Your task to perform on an android device: see tabs open on other devices in the chrome app Image 0: 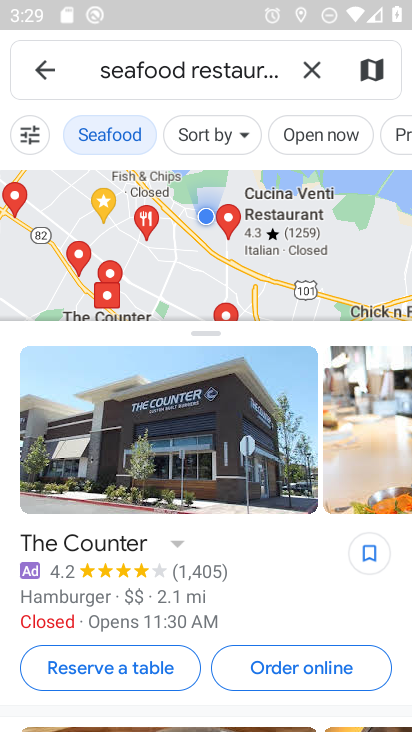
Step 0: press back button
Your task to perform on an android device: see tabs open on other devices in the chrome app Image 1: 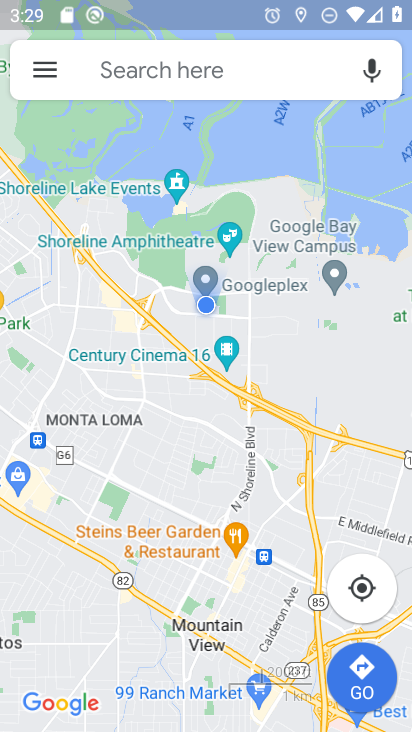
Step 1: press back button
Your task to perform on an android device: see tabs open on other devices in the chrome app Image 2: 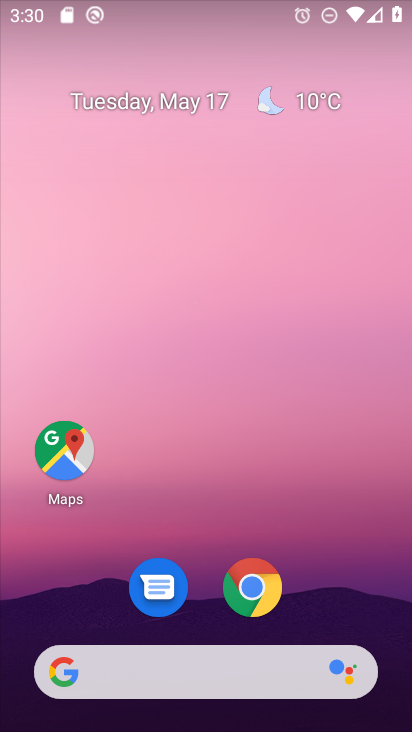
Step 2: drag from (325, 596) to (218, 76)
Your task to perform on an android device: see tabs open on other devices in the chrome app Image 3: 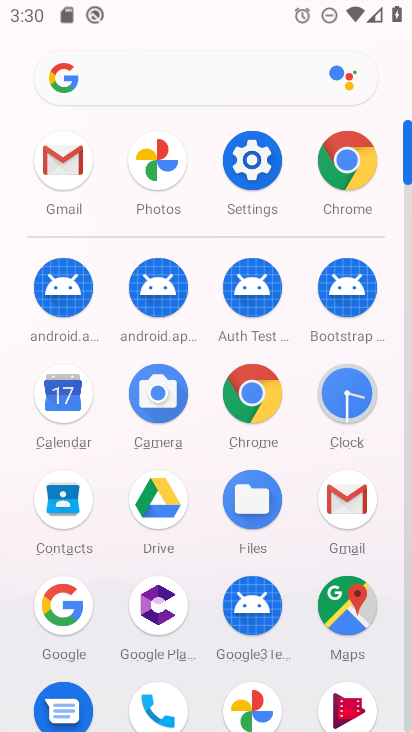
Step 3: drag from (0, 577) to (0, 178)
Your task to perform on an android device: see tabs open on other devices in the chrome app Image 4: 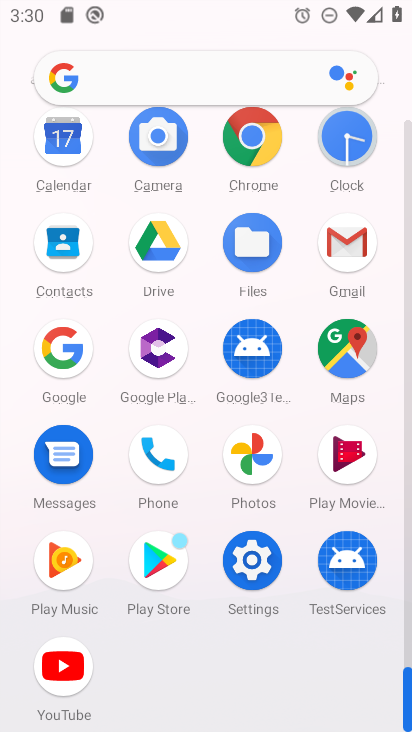
Step 4: click (252, 135)
Your task to perform on an android device: see tabs open on other devices in the chrome app Image 5: 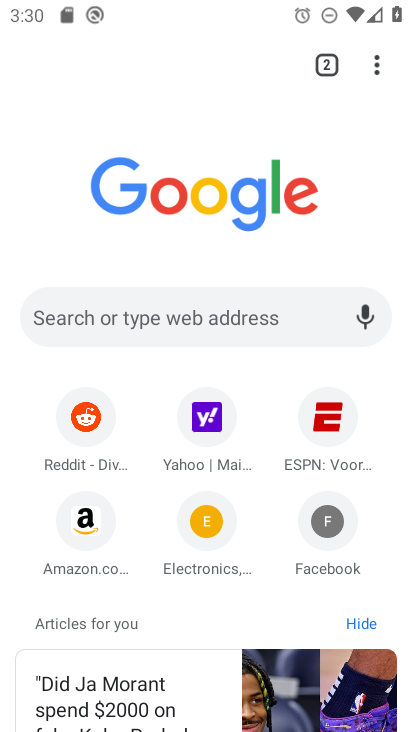
Step 5: task complete